Your task to perform on an android device: toggle priority inbox in the gmail app Image 0: 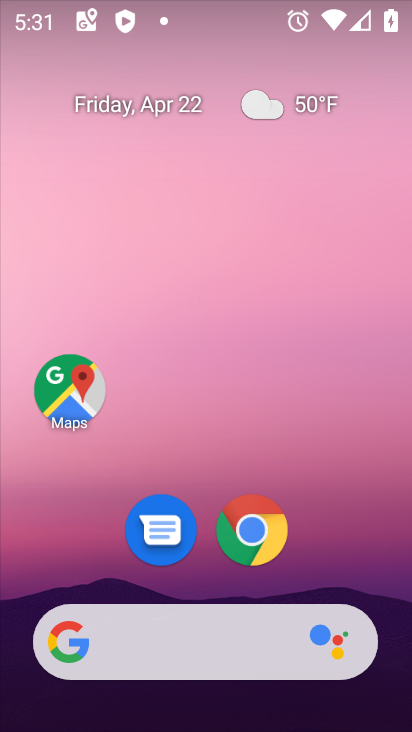
Step 0: drag from (316, 579) to (334, 226)
Your task to perform on an android device: toggle priority inbox in the gmail app Image 1: 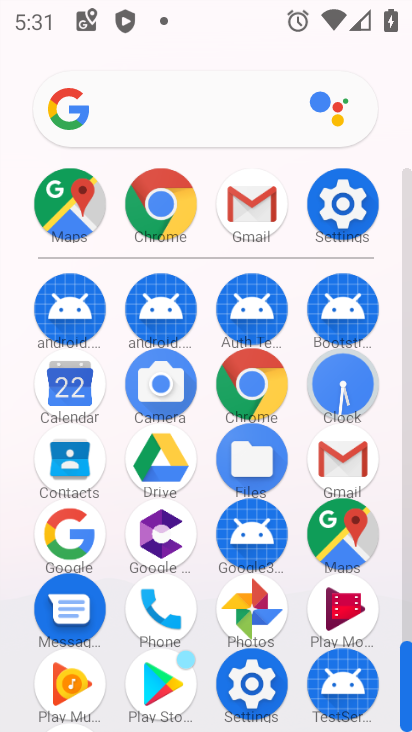
Step 1: click (343, 456)
Your task to perform on an android device: toggle priority inbox in the gmail app Image 2: 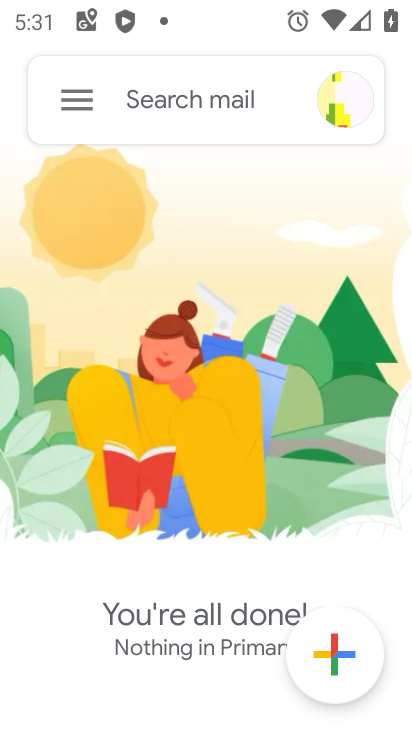
Step 2: click (68, 103)
Your task to perform on an android device: toggle priority inbox in the gmail app Image 3: 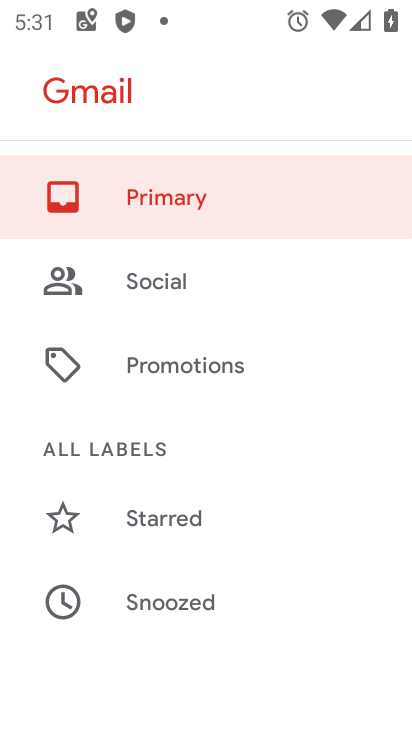
Step 3: drag from (274, 624) to (296, 245)
Your task to perform on an android device: toggle priority inbox in the gmail app Image 4: 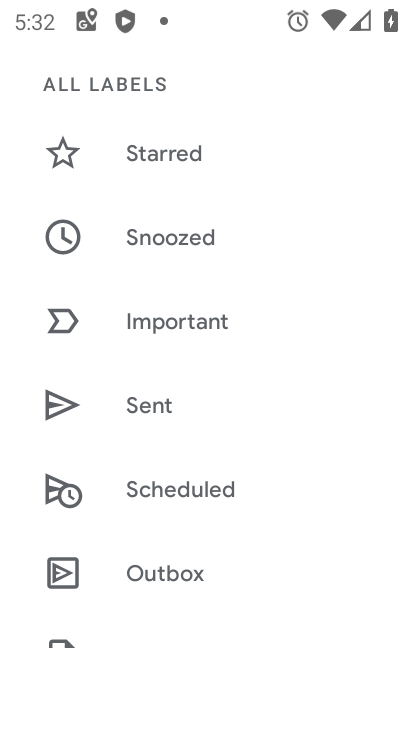
Step 4: drag from (276, 588) to (319, 178)
Your task to perform on an android device: toggle priority inbox in the gmail app Image 5: 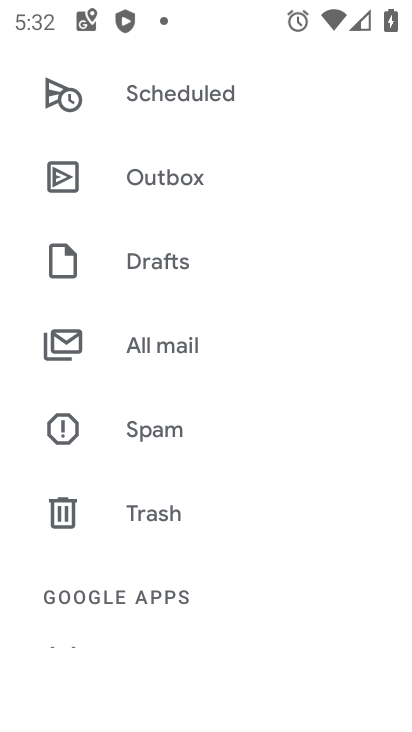
Step 5: drag from (269, 563) to (329, 237)
Your task to perform on an android device: toggle priority inbox in the gmail app Image 6: 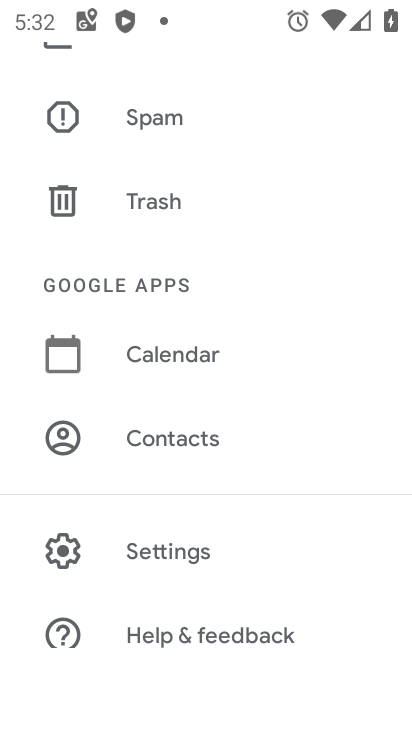
Step 6: click (152, 549)
Your task to perform on an android device: toggle priority inbox in the gmail app Image 7: 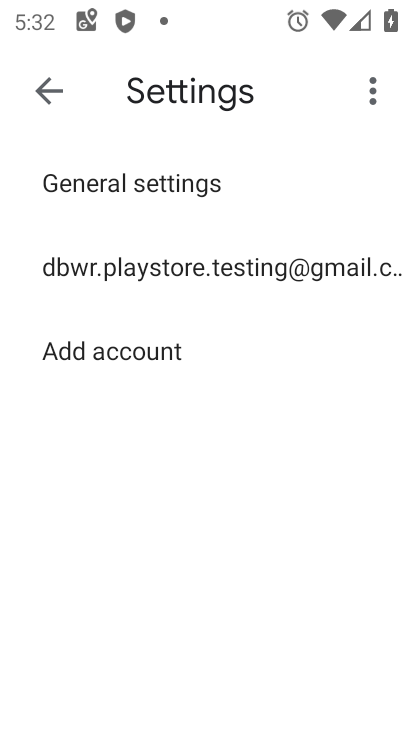
Step 7: click (260, 272)
Your task to perform on an android device: toggle priority inbox in the gmail app Image 8: 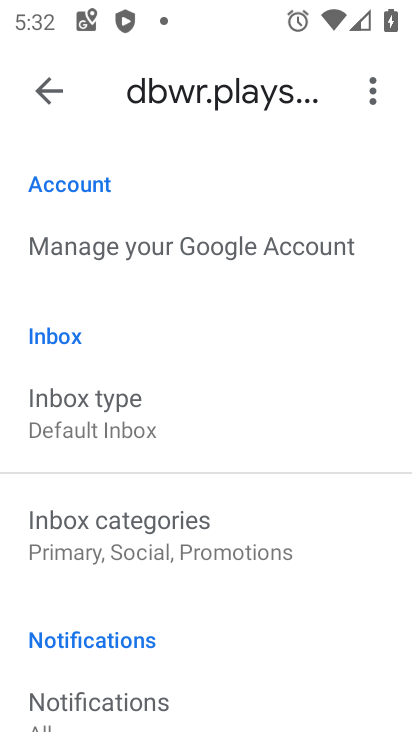
Step 8: click (106, 414)
Your task to perform on an android device: toggle priority inbox in the gmail app Image 9: 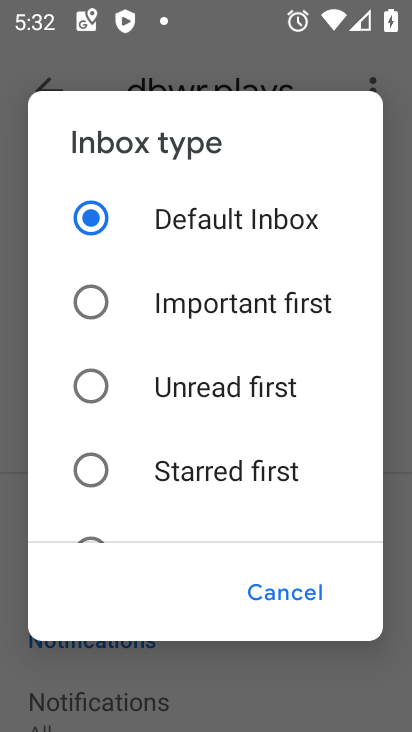
Step 9: drag from (325, 478) to (338, 215)
Your task to perform on an android device: toggle priority inbox in the gmail app Image 10: 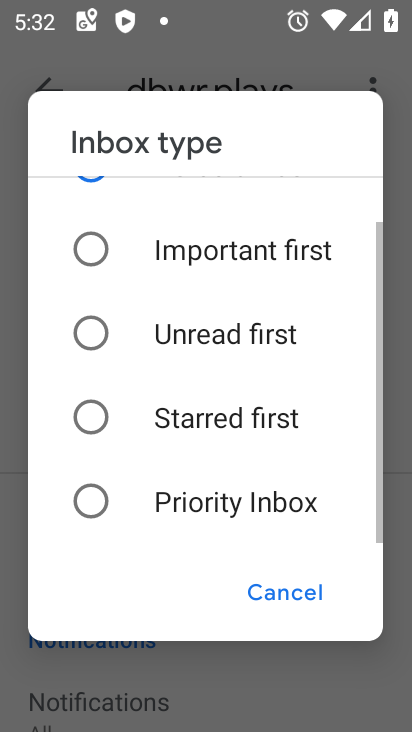
Step 10: click (211, 493)
Your task to perform on an android device: toggle priority inbox in the gmail app Image 11: 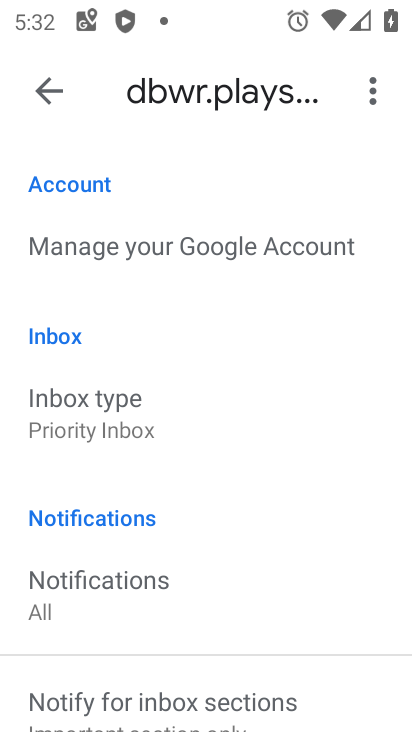
Step 11: task complete